Your task to perform on an android device: What's the weather today? Image 0: 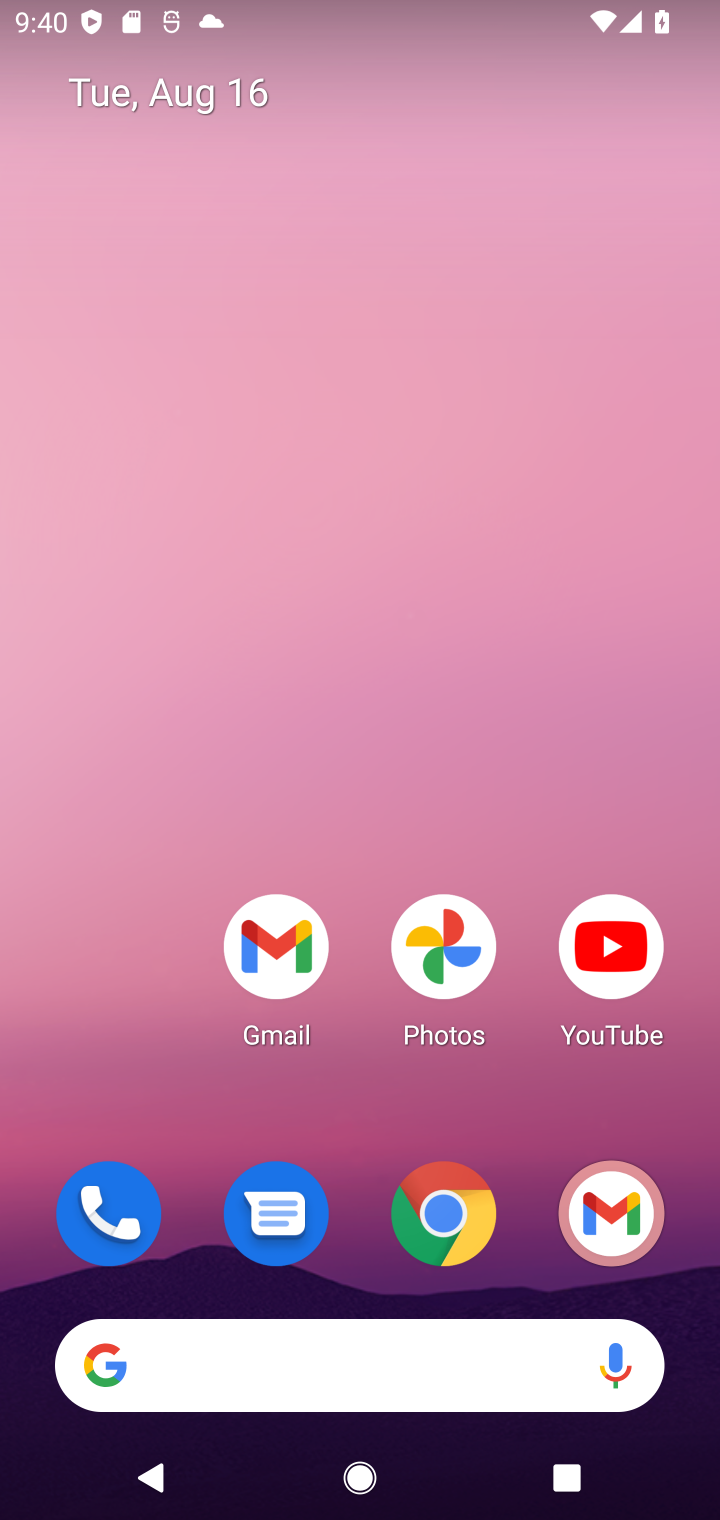
Step 0: click (496, 1188)
Your task to perform on an android device: What's the weather today? Image 1: 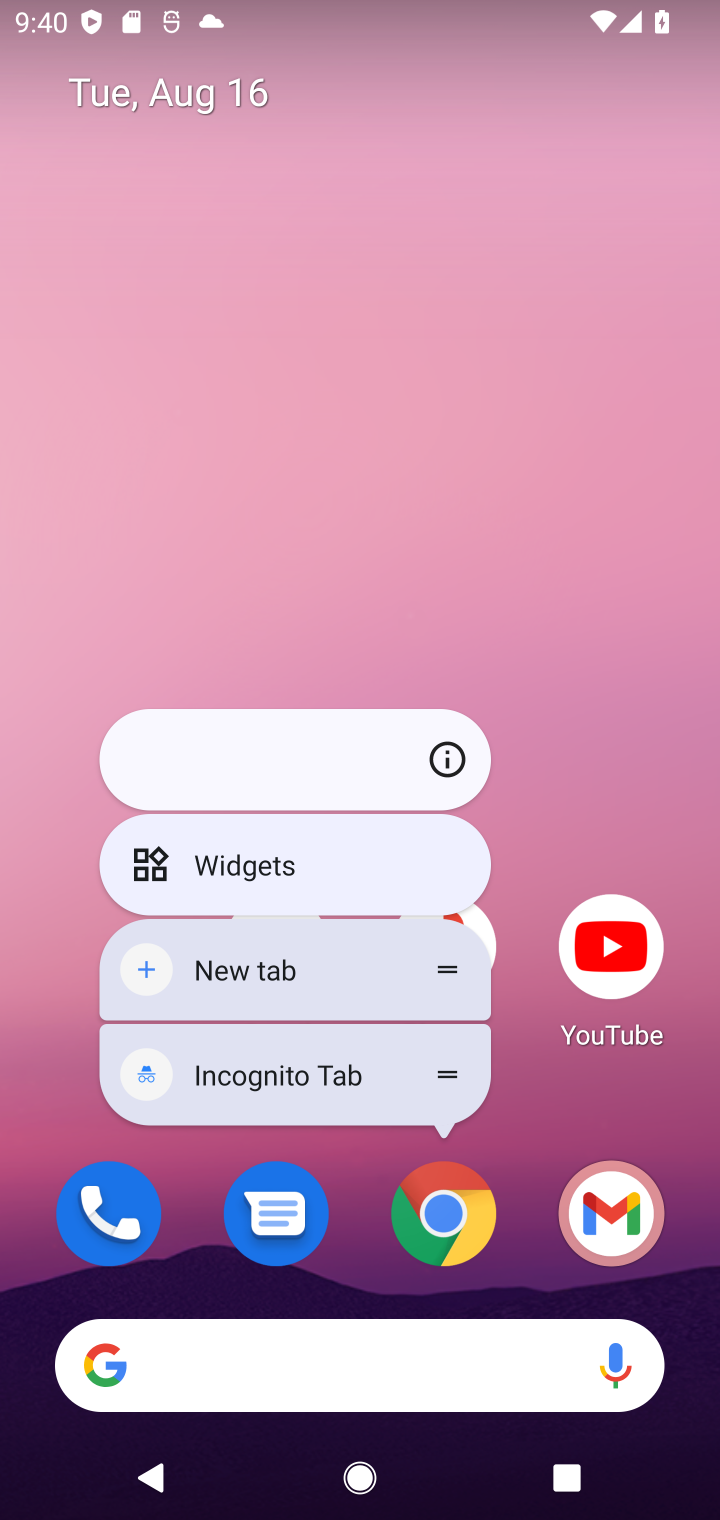
Step 1: click (461, 1209)
Your task to perform on an android device: What's the weather today? Image 2: 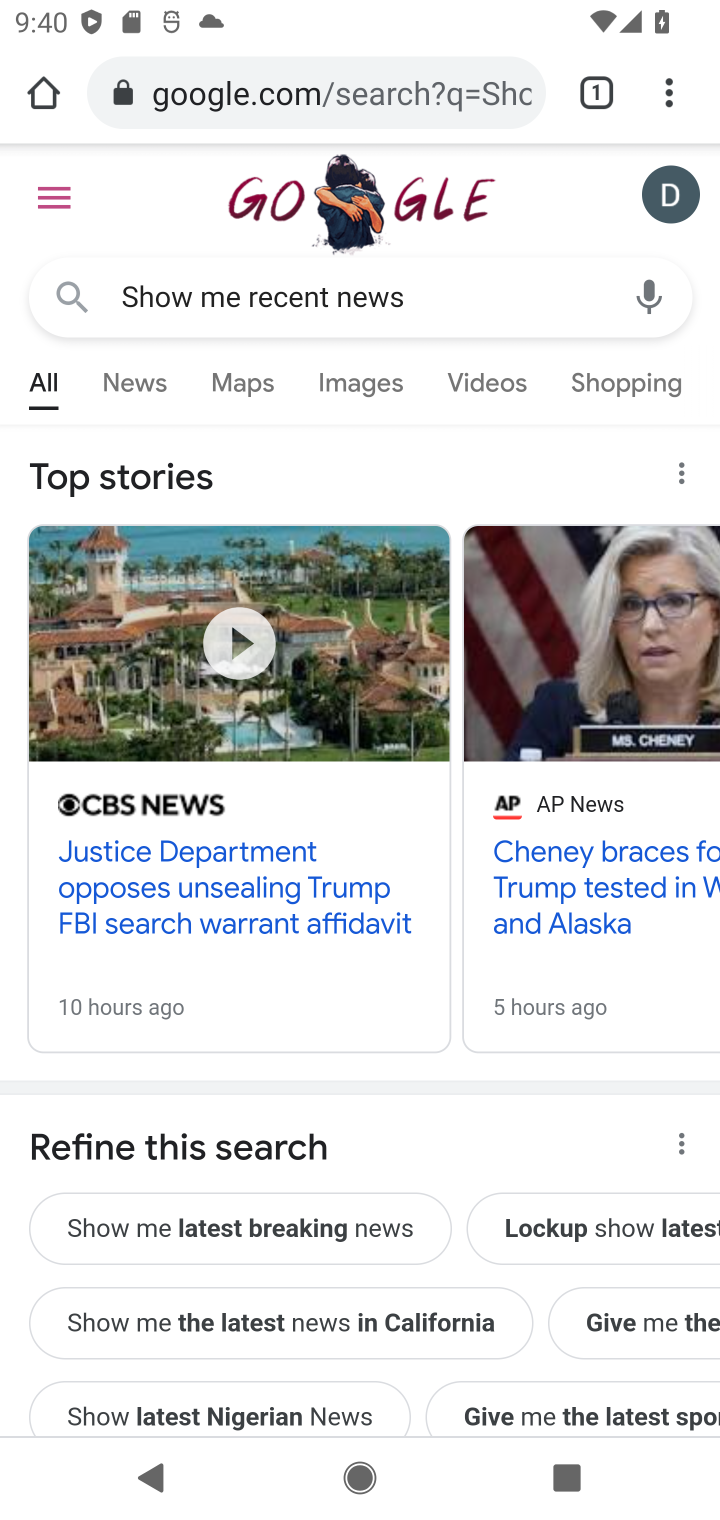
Step 2: click (663, 86)
Your task to perform on an android device: What's the weather today? Image 3: 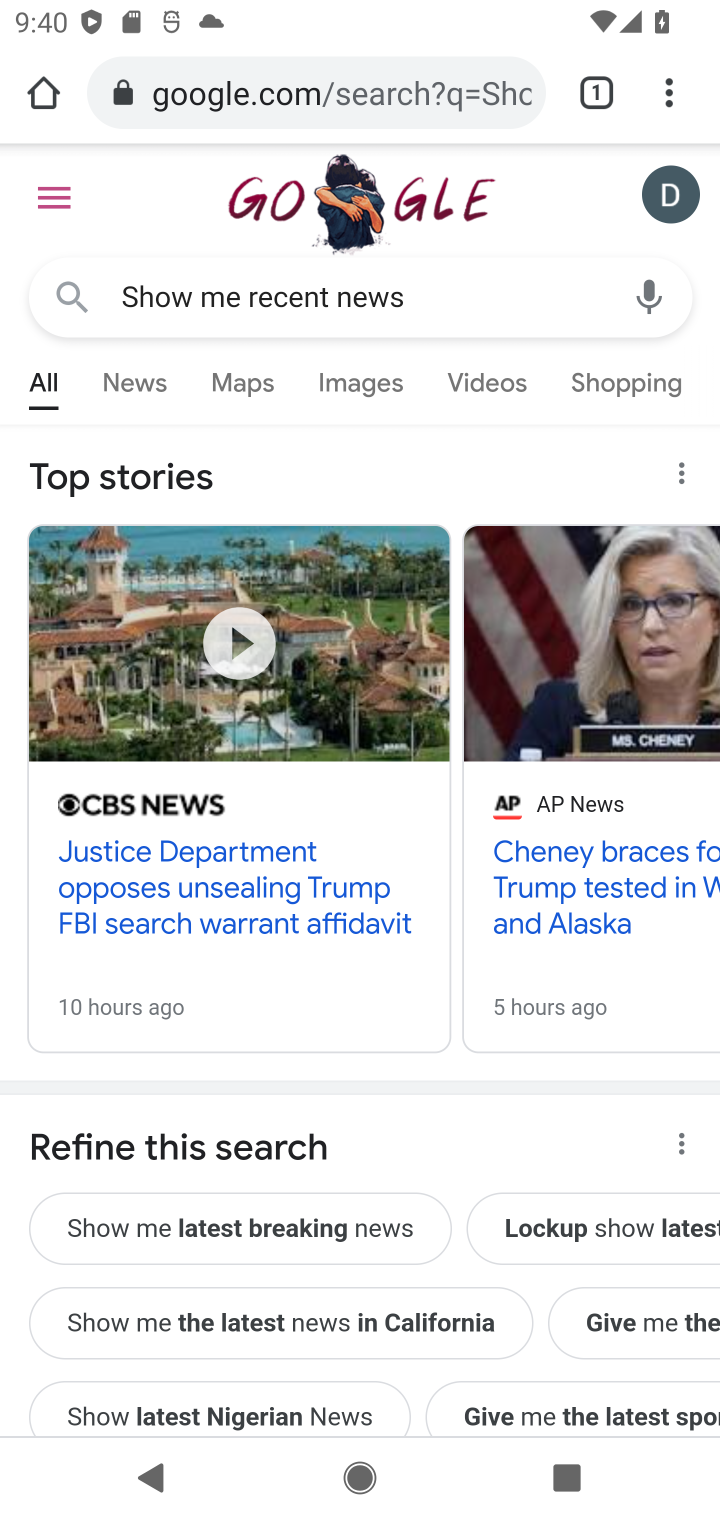
Step 3: click (663, 86)
Your task to perform on an android device: What's the weather today? Image 4: 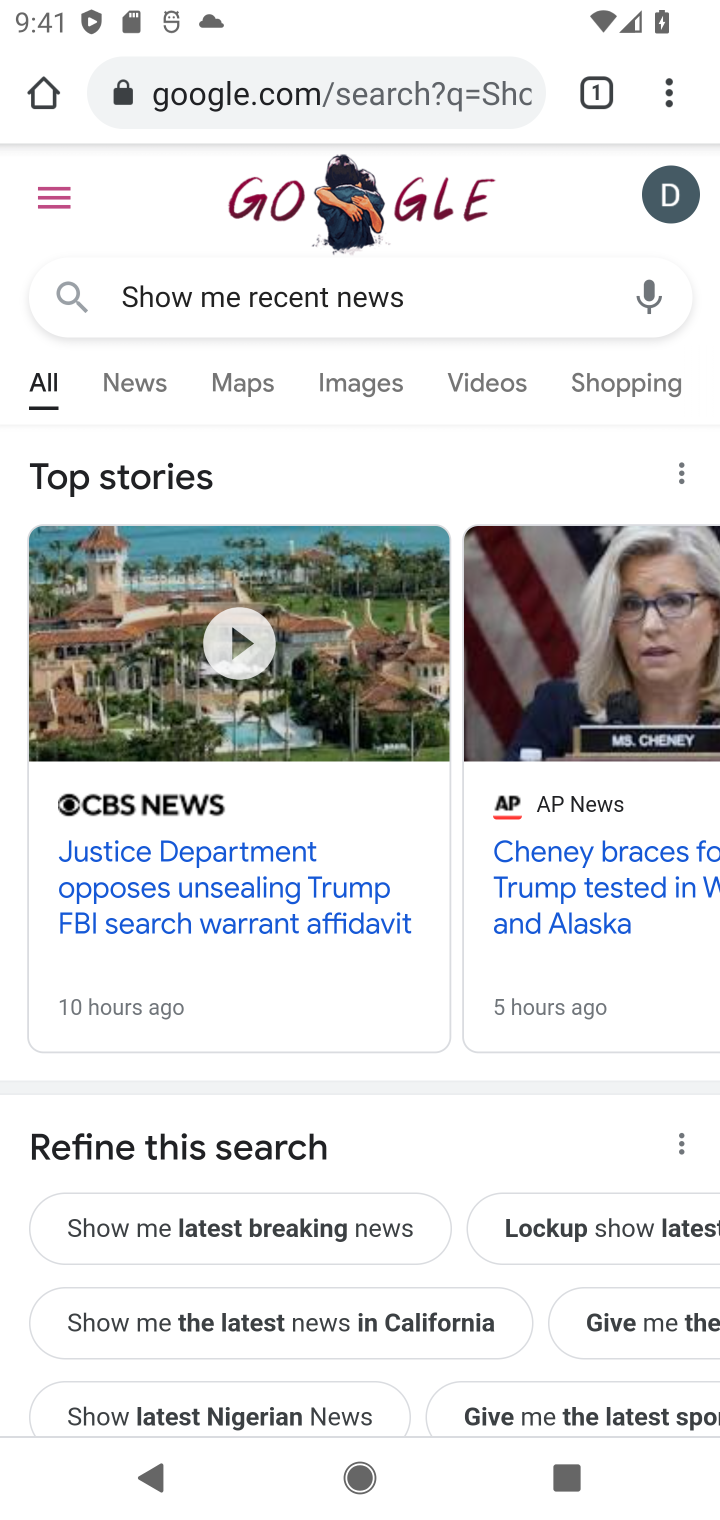
Step 4: click (675, 93)
Your task to perform on an android device: What's the weather today? Image 5: 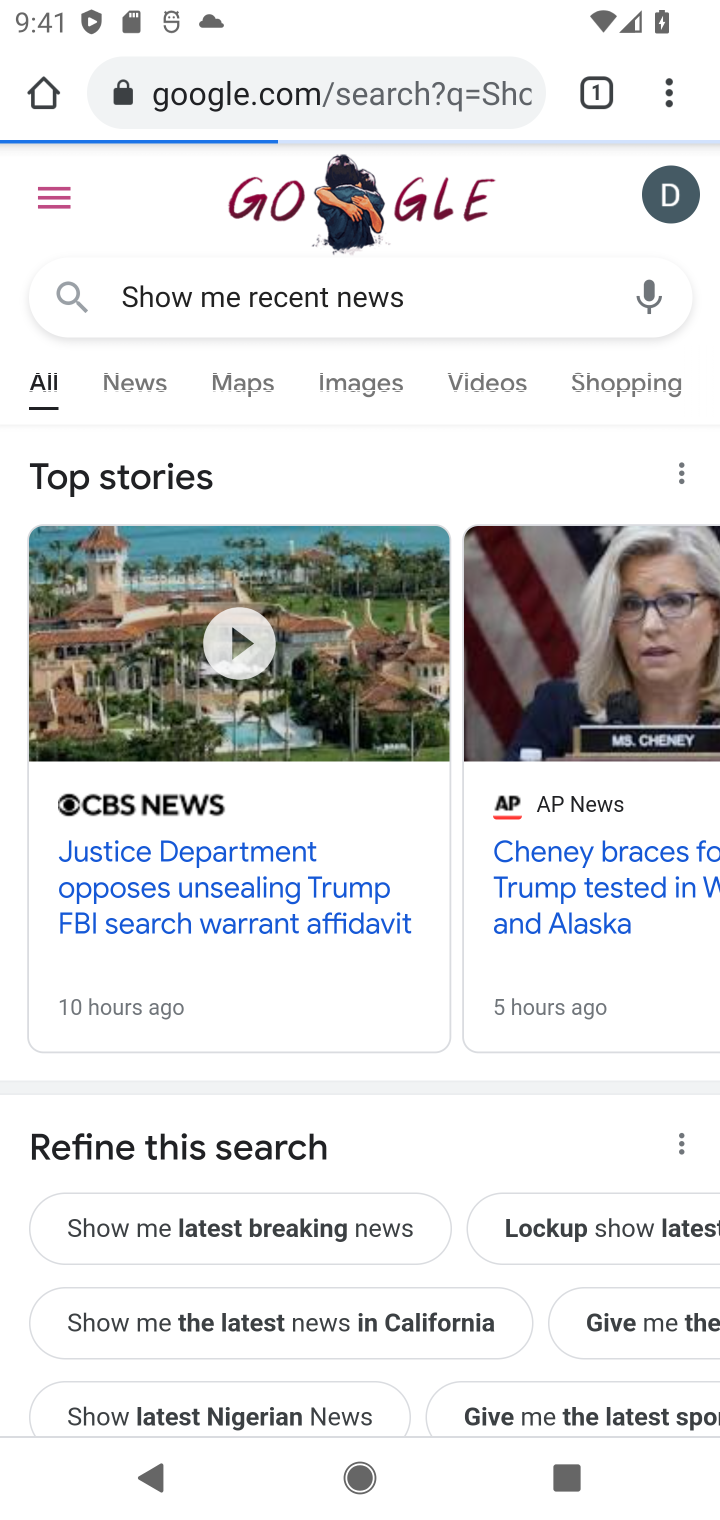
Step 5: click (675, 93)
Your task to perform on an android device: What's the weather today? Image 6: 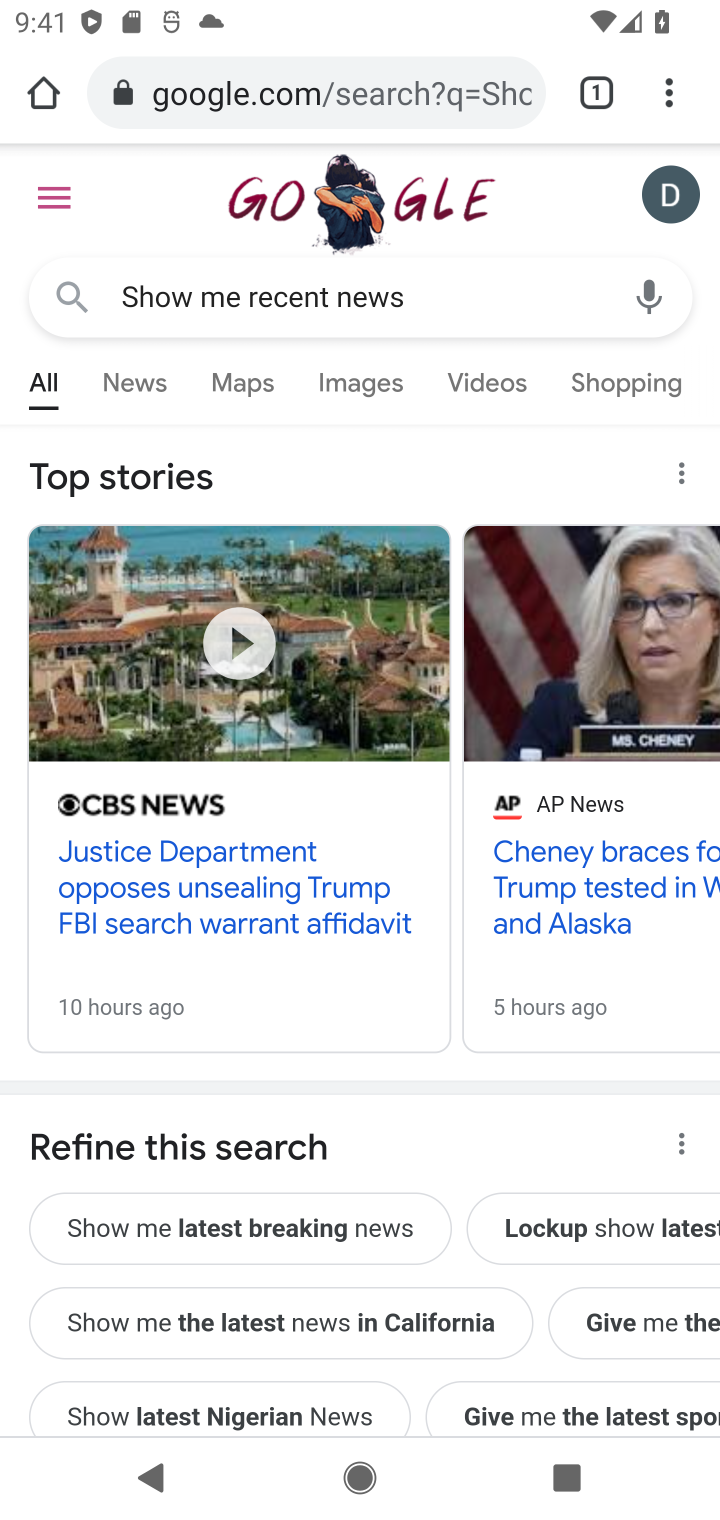
Step 6: click (675, 93)
Your task to perform on an android device: What's the weather today? Image 7: 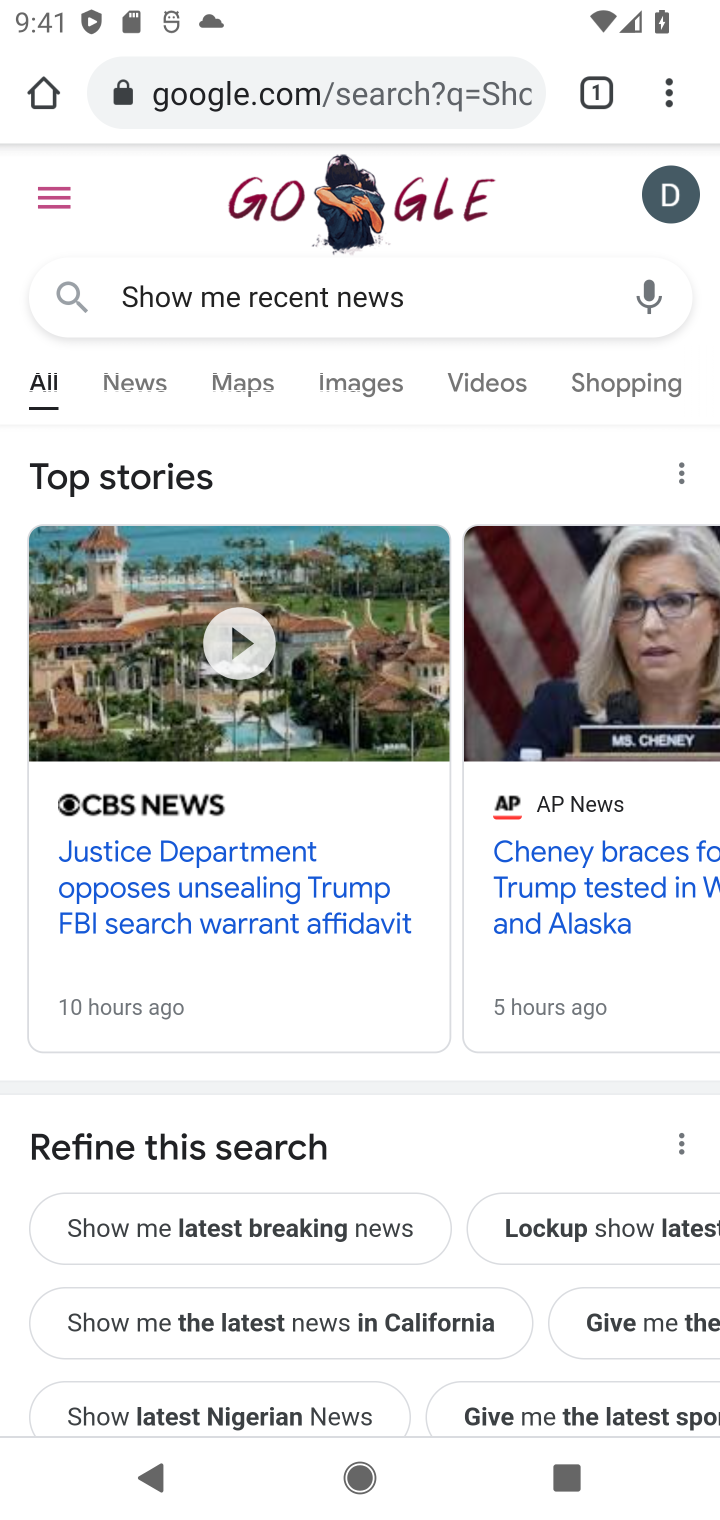
Step 7: click (667, 96)
Your task to perform on an android device: What's the weather today? Image 8: 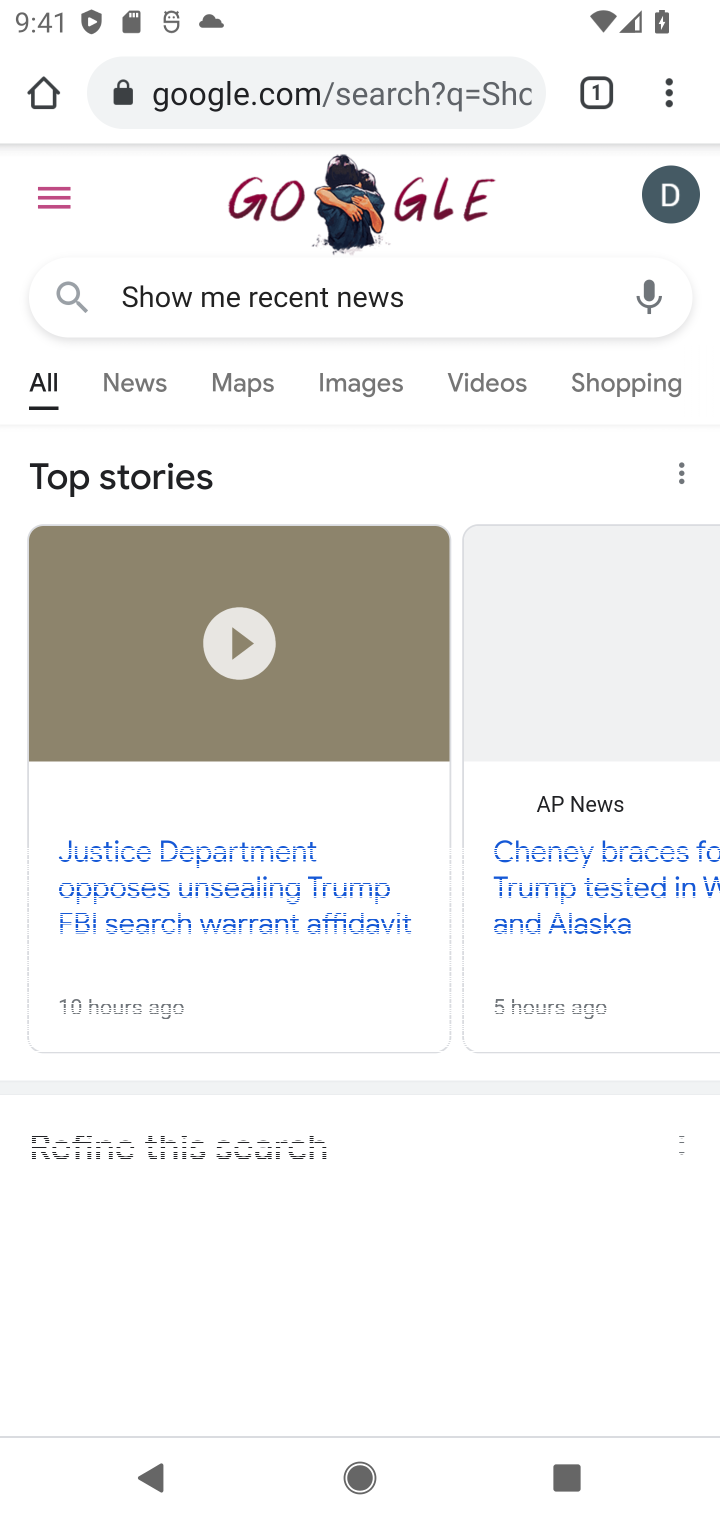
Step 8: click (667, 96)
Your task to perform on an android device: What's the weather today? Image 9: 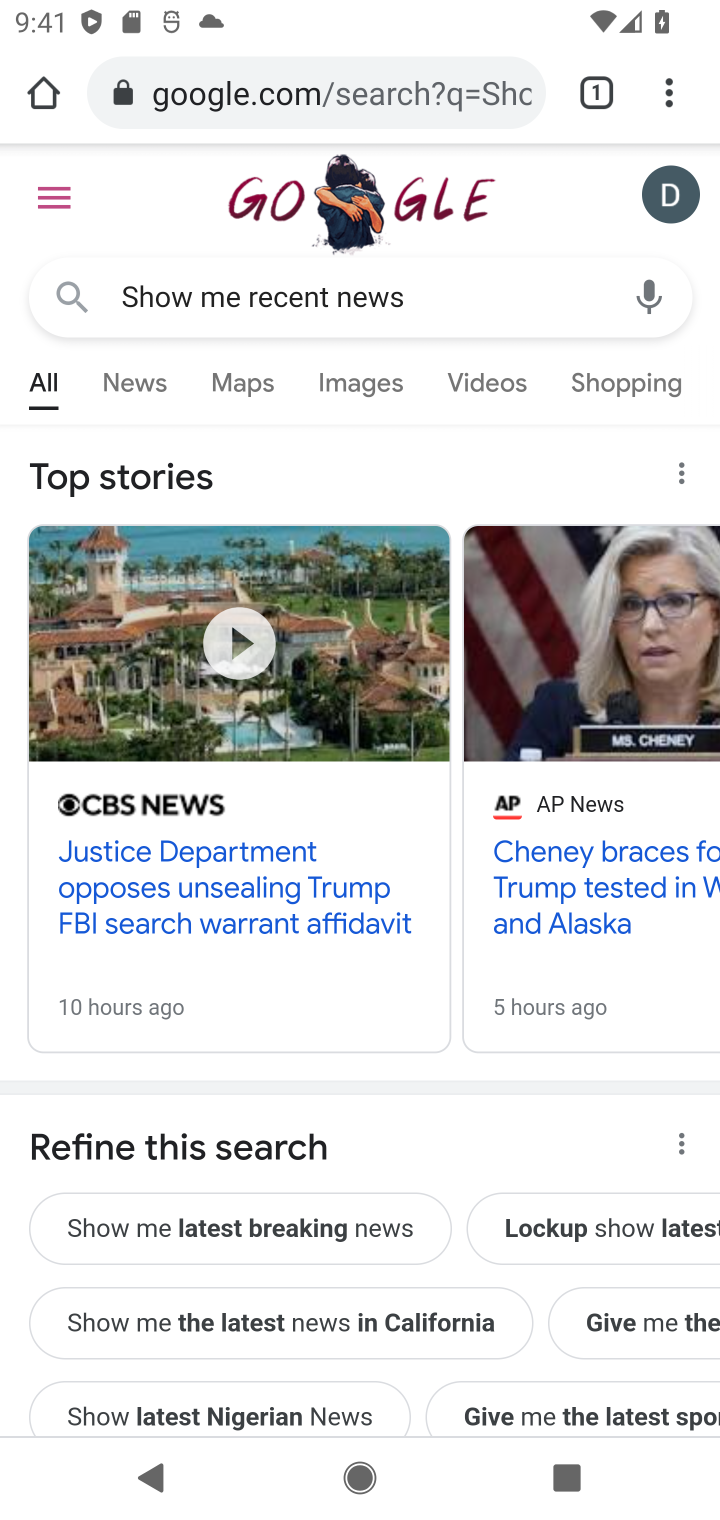
Step 9: click (578, 91)
Your task to perform on an android device: What's the weather today? Image 10: 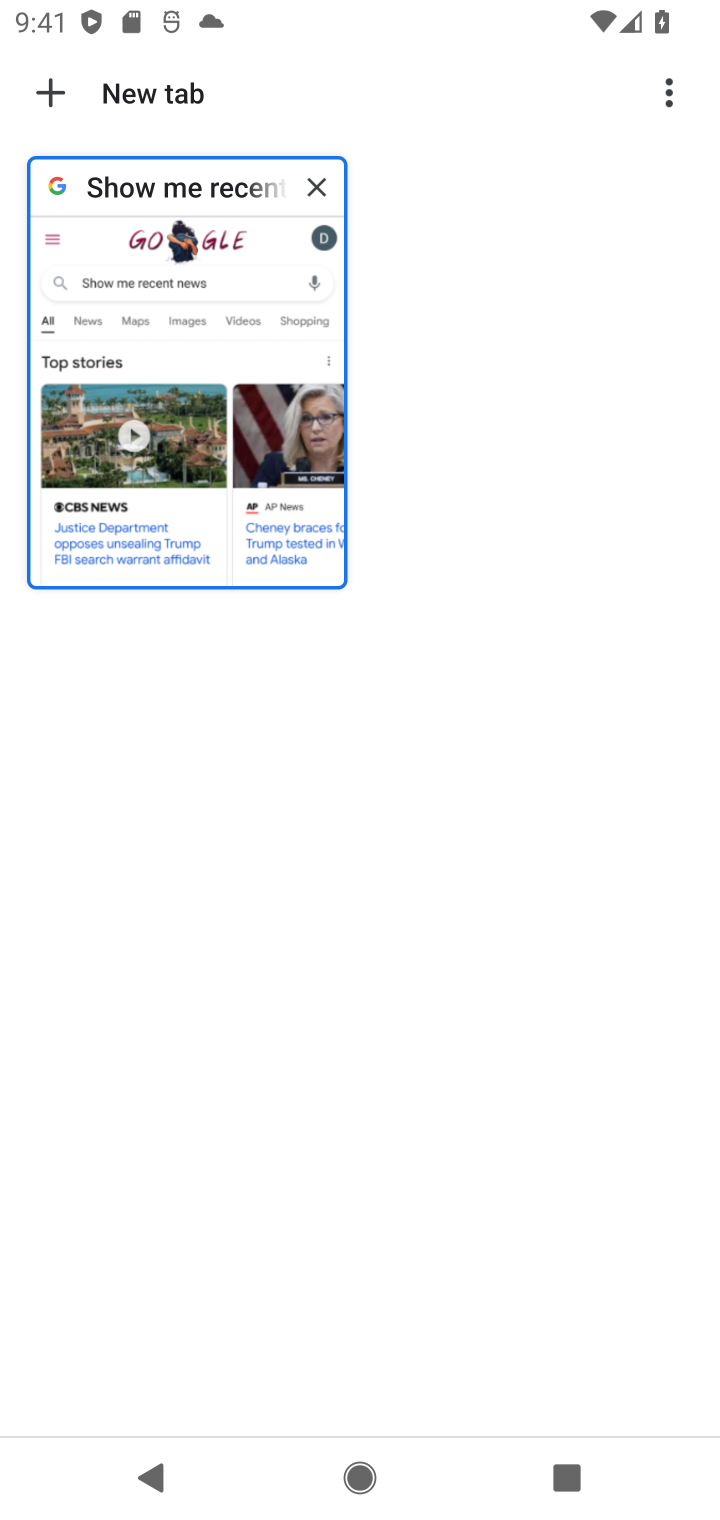
Step 10: click (71, 76)
Your task to perform on an android device: What's the weather today? Image 11: 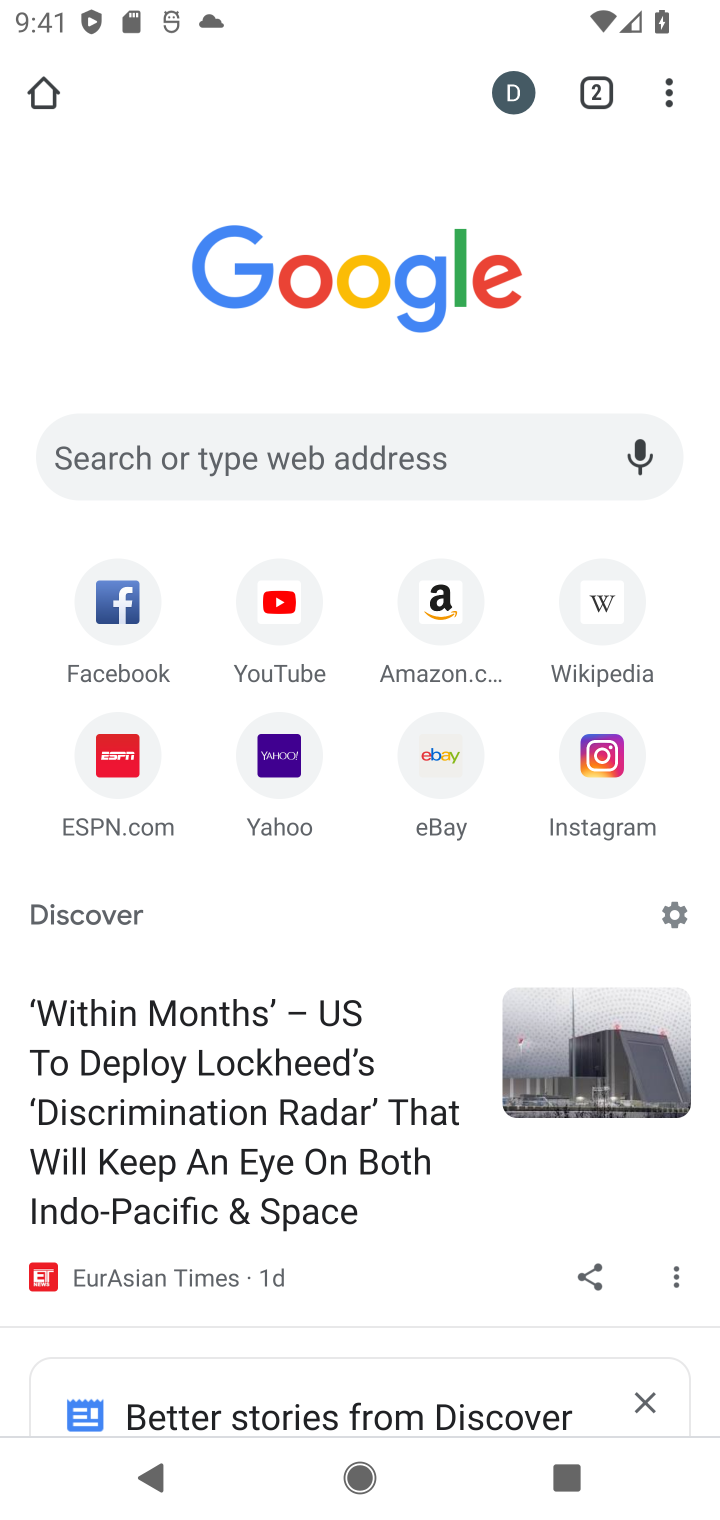
Step 11: click (302, 458)
Your task to perform on an android device: What's the weather today? Image 12: 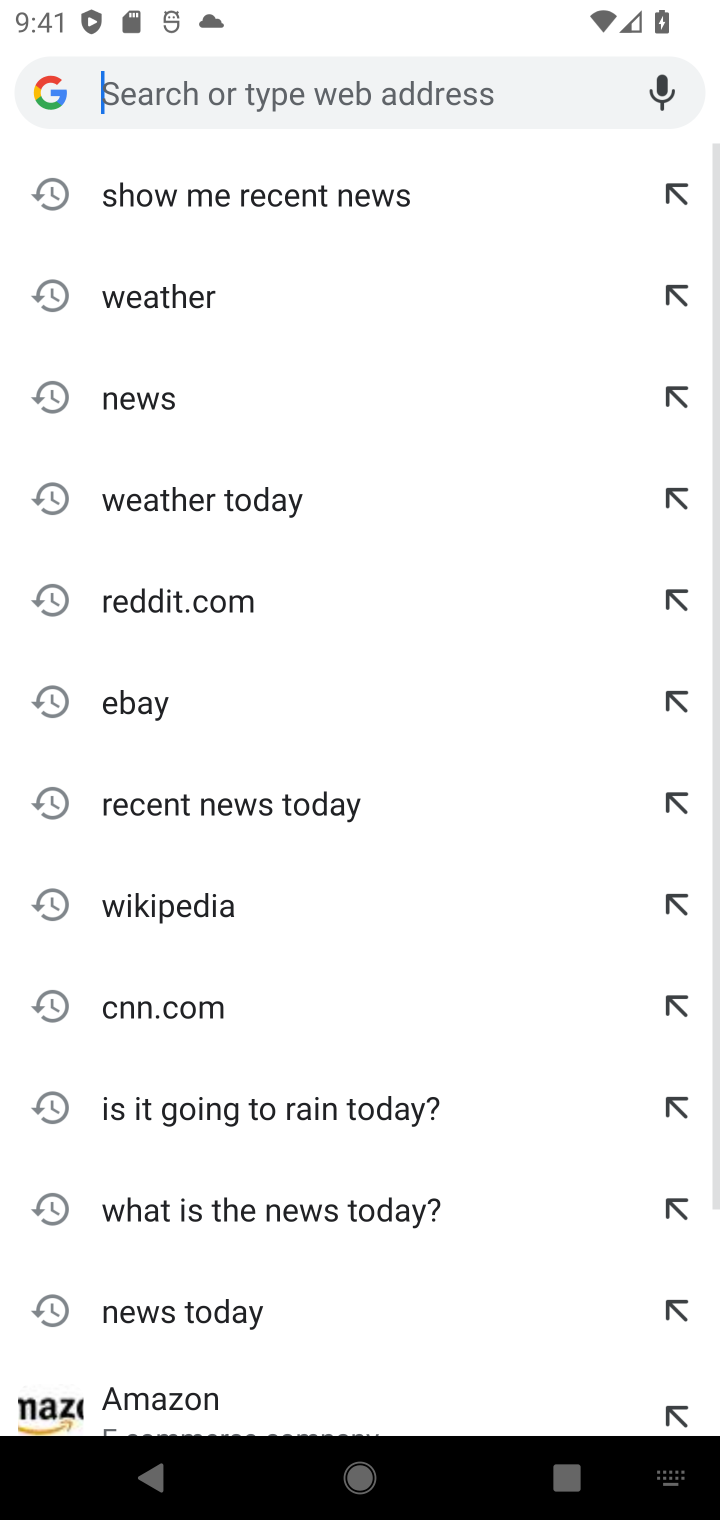
Step 12: type "What's the weather today? "
Your task to perform on an android device: What's the weather today? Image 13: 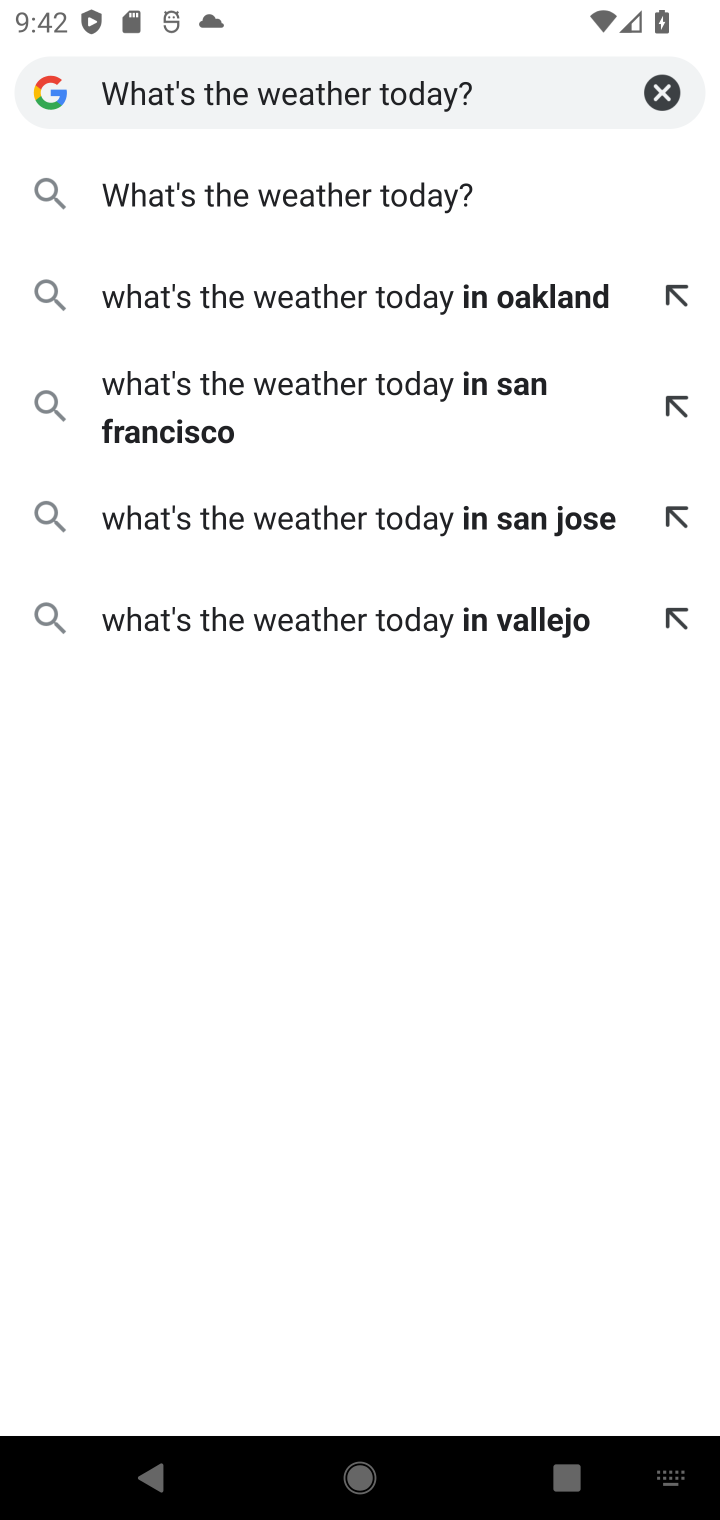
Step 13: click (313, 206)
Your task to perform on an android device: What's the weather today? Image 14: 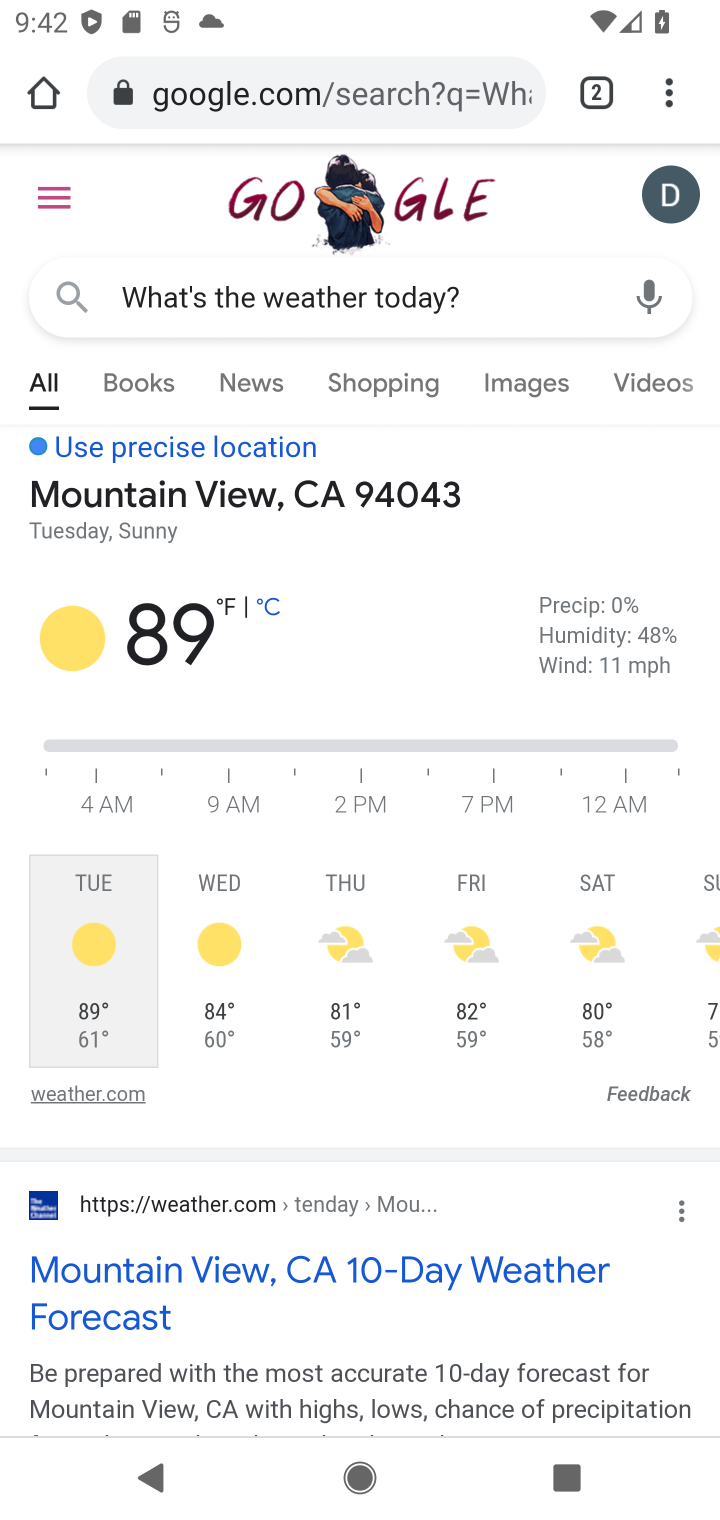
Step 14: task complete